Your task to perform on an android device: Search for sushi restaurants on Maps Image 0: 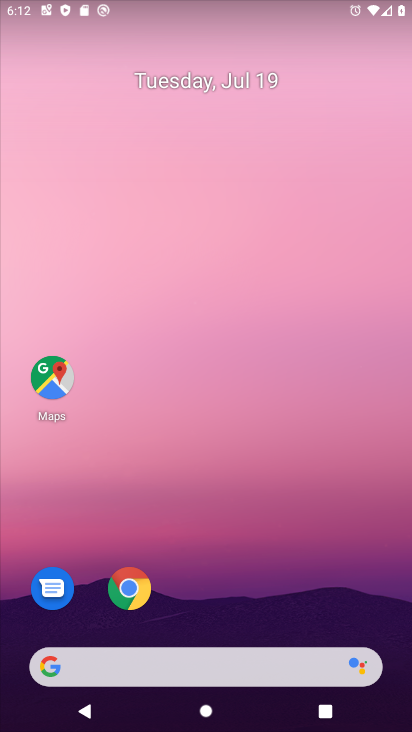
Step 0: click (37, 375)
Your task to perform on an android device: Search for sushi restaurants on Maps Image 1: 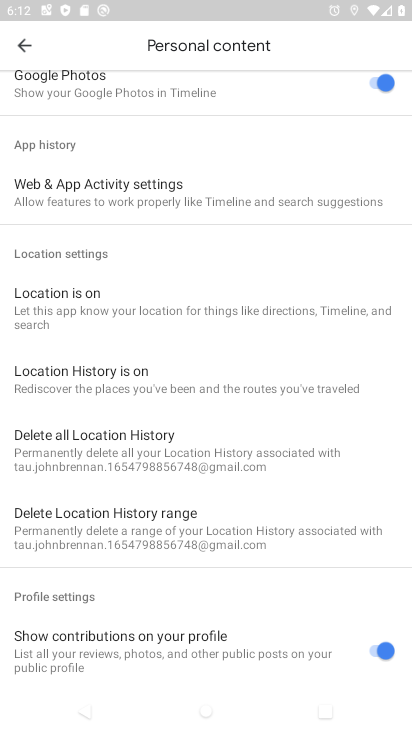
Step 1: click (32, 63)
Your task to perform on an android device: Search for sushi restaurants on Maps Image 2: 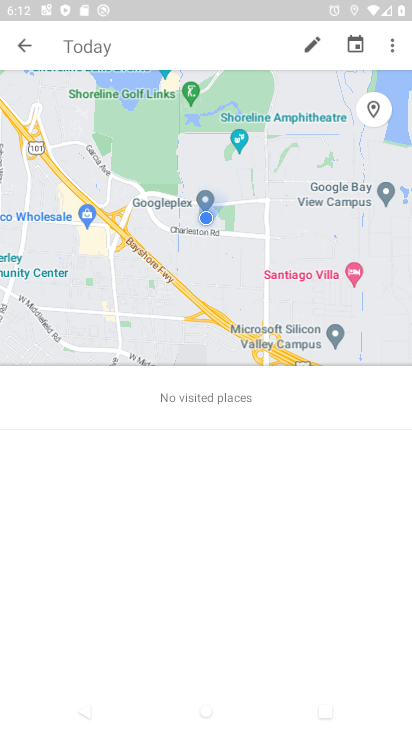
Step 2: click (21, 44)
Your task to perform on an android device: Search for sushi restaurants on Maps Image 3: 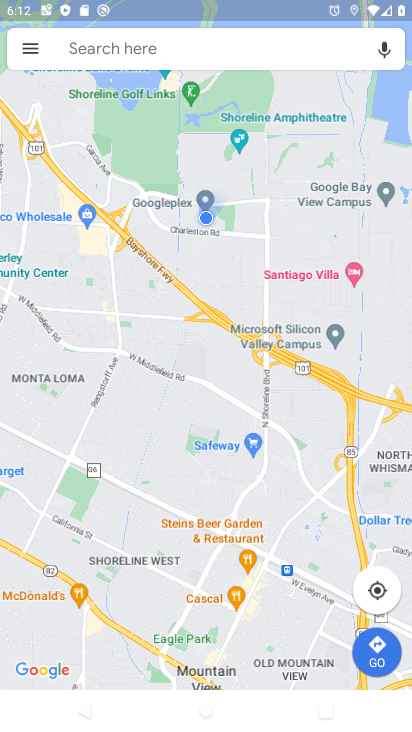
Step 3: click (121, 43)
Your task to perform on an android device: Search for sushi restaurants on Maps Image 4: 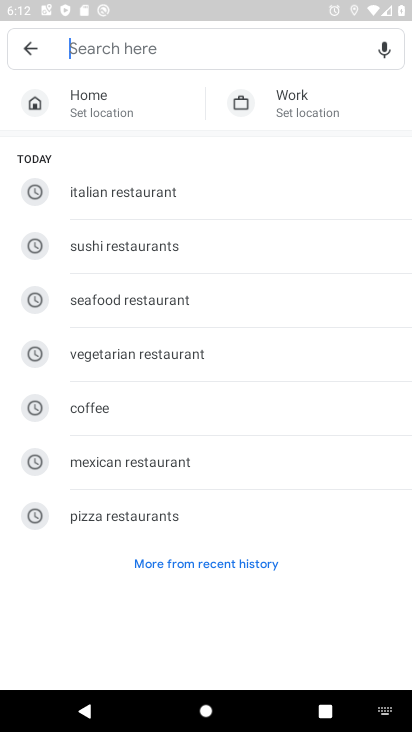
Step 4: click (242, 53)
Your task to perform on an android device: Search for sushi restaurants on Maps Image 5: 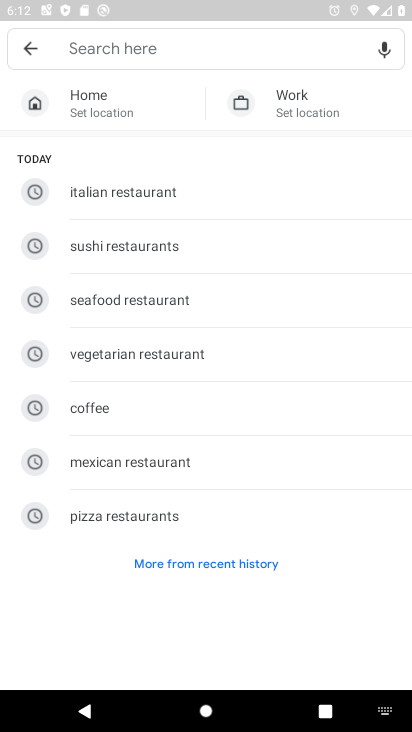
Step 5: click (101, 249)
Your task to perform on an android device: Search for sushi restaurants on Maps Image 6: 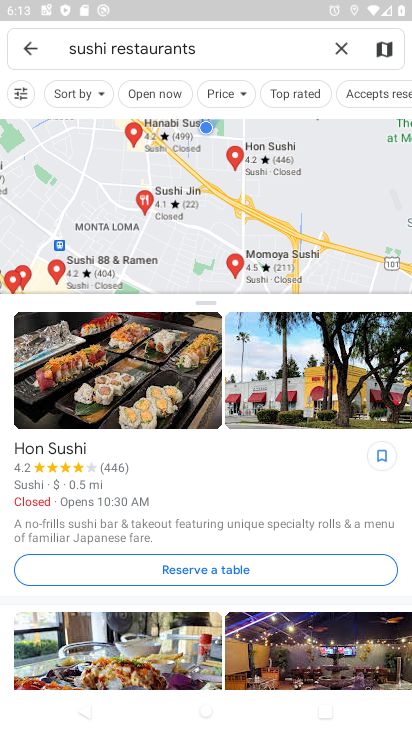
Step 6: task complete